Your task to perform on an android device: Go to Yahoo.com Image 0: 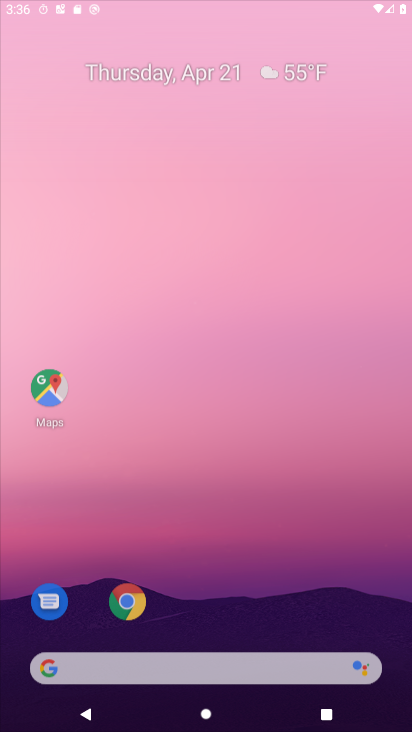
Step 0: click (364, 218)
Your task to perform on an android device: Go to Yahoo.com Image 1: 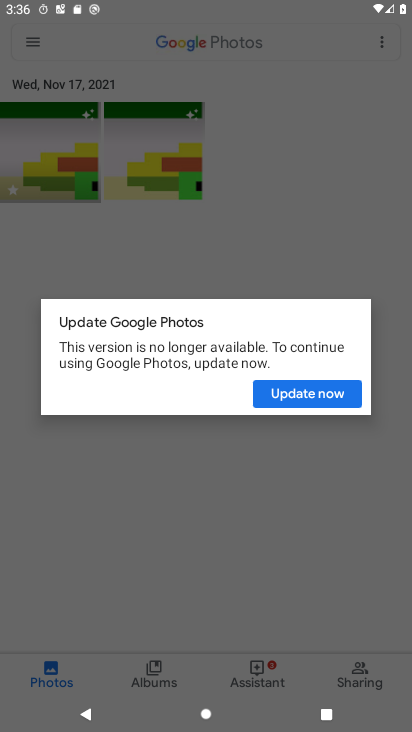
Step 1: press home button
Your task to perform on an android device: Go to Yahoo.com Image 2: 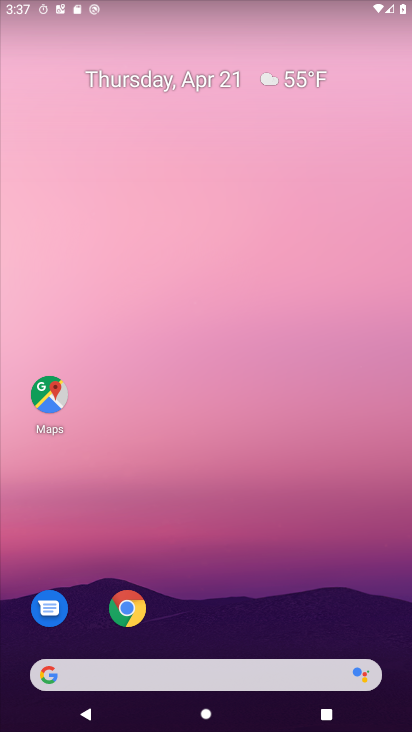
Step 2: click (136, 598)
Your task to perform on an android device: Go to Yahoo.com Image 3: 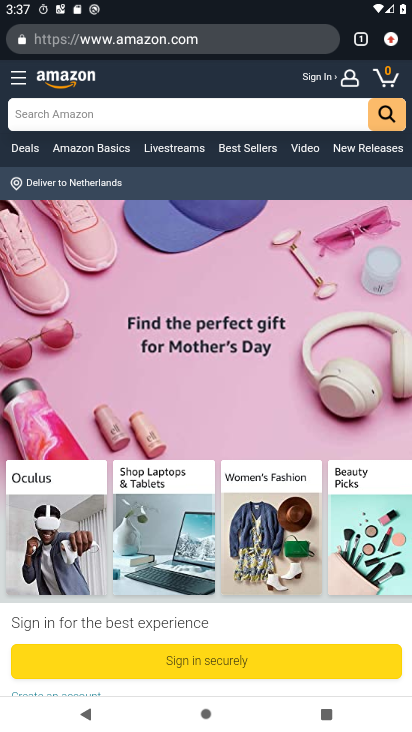
Step 3: drag from (387, 42) to (246, 123)
Your task to perform on an android device: Go to Yahoo.com Image 4: 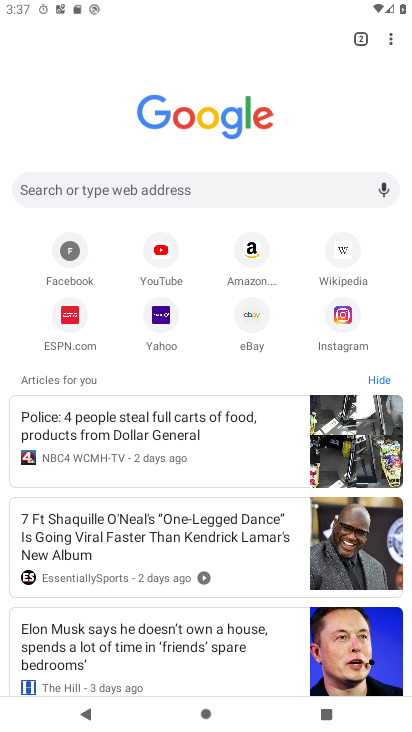
Step 4: click (148, 328)
Your task to perform on an android device: Go to Yahoo.com Image 5: 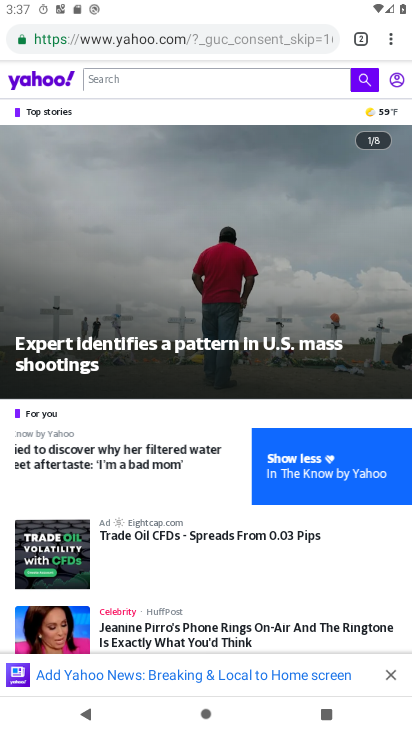
Step 5: task complete